Your task to perform on an android device: Check the news Image 0: 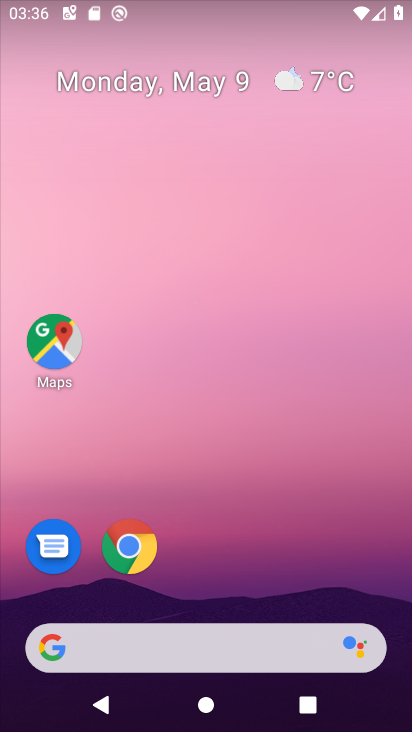
Step 0: drag from (197, 566) to (212, 129)
Your task to perform on an android device: Check the news Image 1: 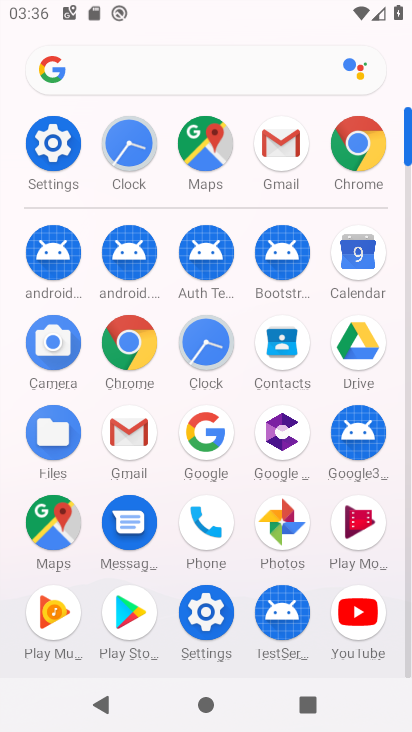
Step 1: click (211, 433)
Your task to perform on an android device: Check the news Image 2: 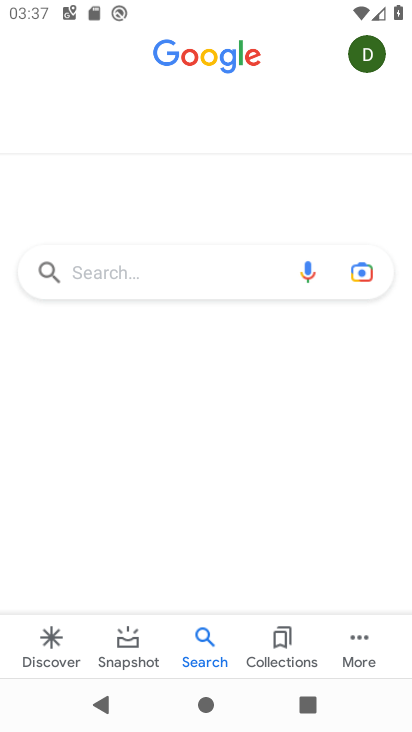
Step 2: click (165, 273)
Your task to perform on an android device: Check the news Image 3: 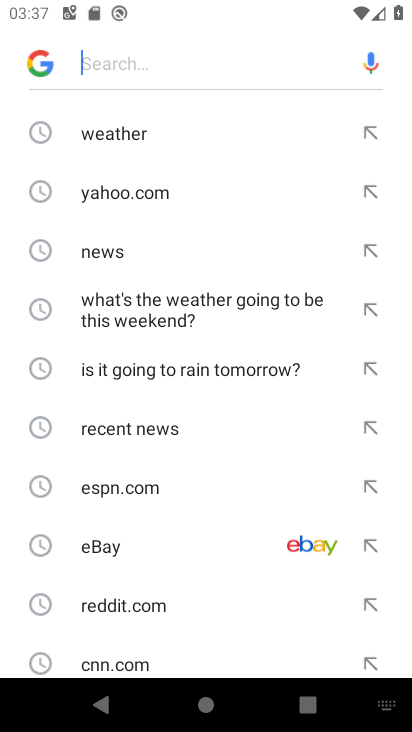
Step 3: click (101, 246)
Your task to perform on an android device: Check the news Image 4: 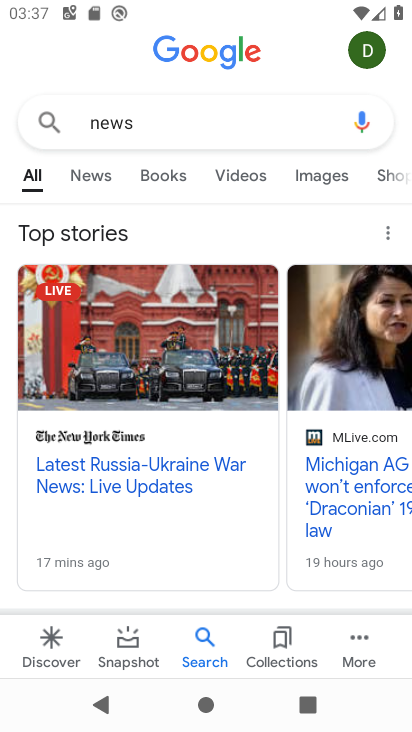
Step 4: click (97, 172)
Your task to perform on an android device: Check the news Image 5: 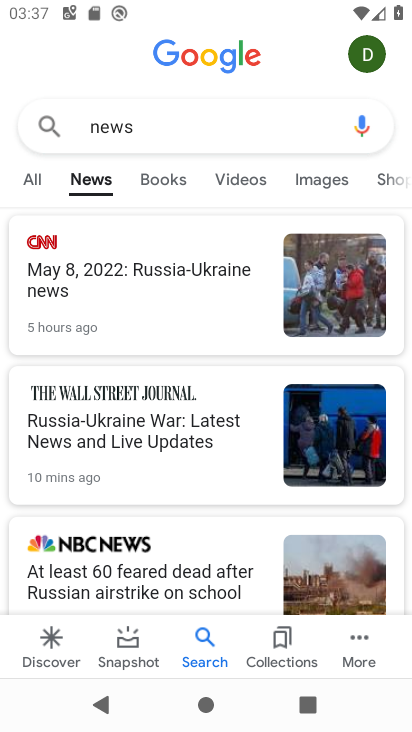
Step 5: task complete